Your task to perform on an android device: check battery use Image 0: 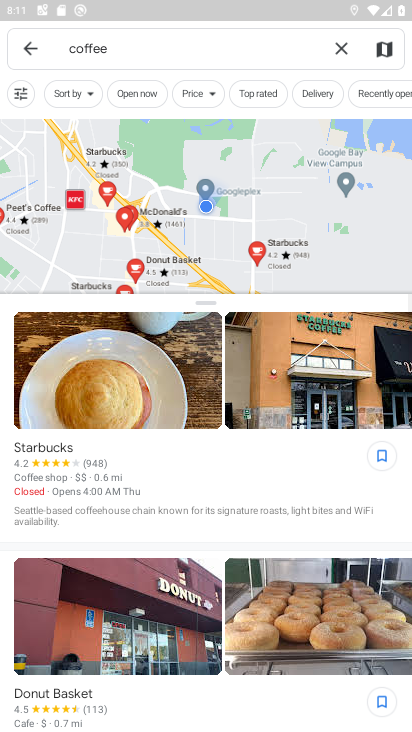
Step 0: press home button
Your task to perform on an android device: check battery use Image 1: 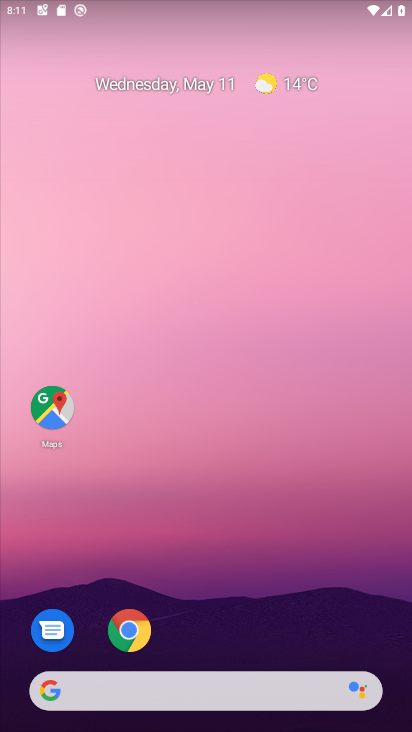
Step 1: drag from (78, 729) to (256, 72)
Your task to perform on an android device: check battery use Image 2: 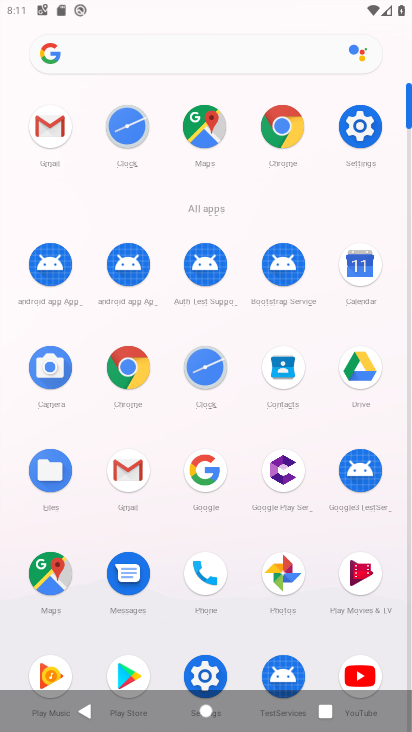
Step 2: click (353, 121)
Your task to perform on an android device: check battery use Image 3: 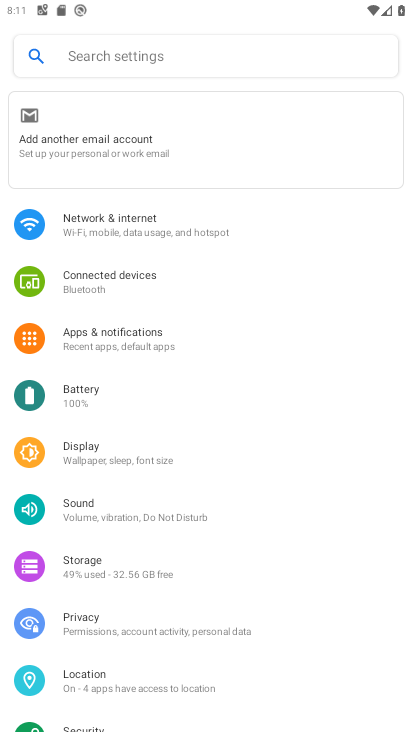
Step 3: click (132, 382)
Your task to perform on an android device: check battery use Image 4: 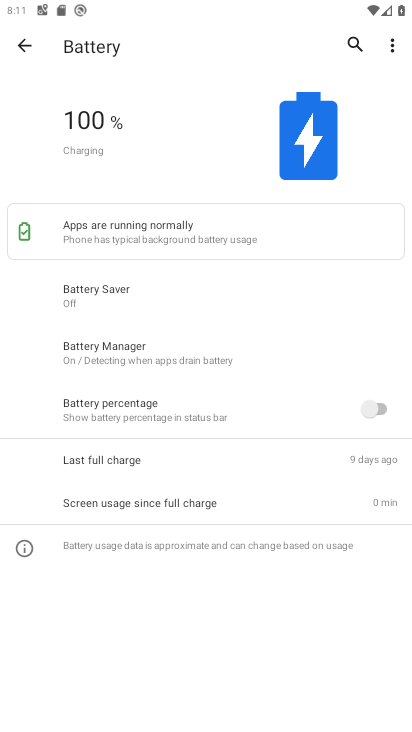
Step 4: task complete